Your task to perform on an android device: delete the emails in spam in the gmail app Image 0: 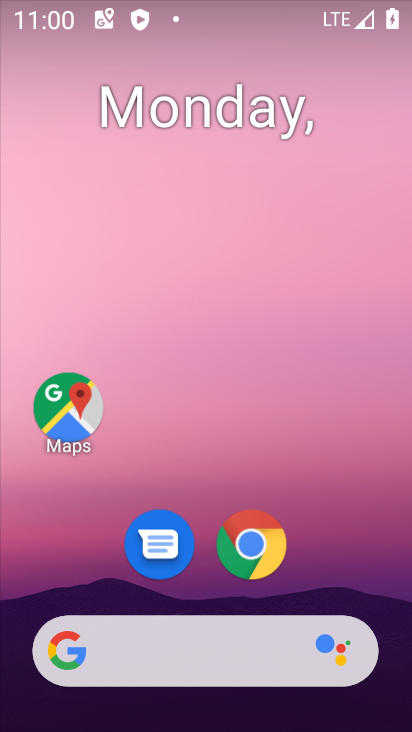
Step 0: drag from (381, 635) to (382, 243)
Your task to perform on an android device: delete the emails in spam in the gmail app Image 1: 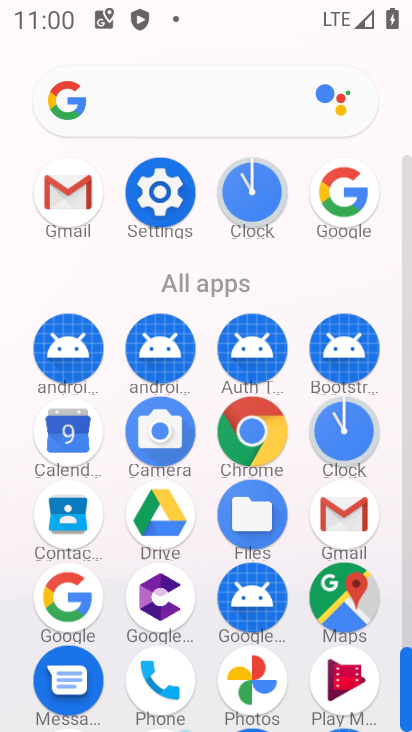
Step 1: click (340, 512)
Your task to perform on an android device: delete the emails in spam in the gmail app Image 2: 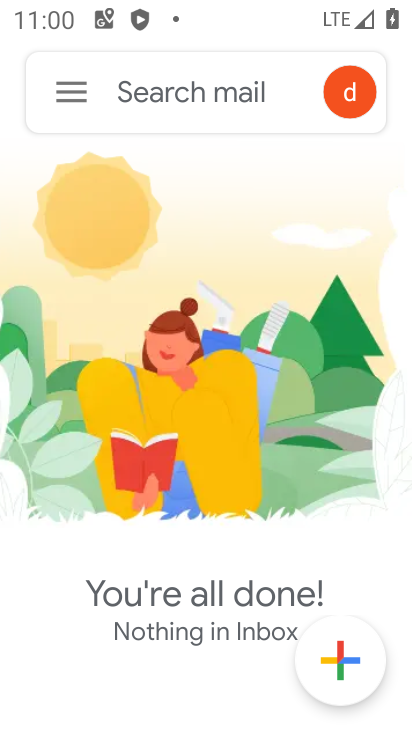
Step 2: click (81, 94)
Your task to perform on an android device: delete the emails in spam in the gmail app Image 3: 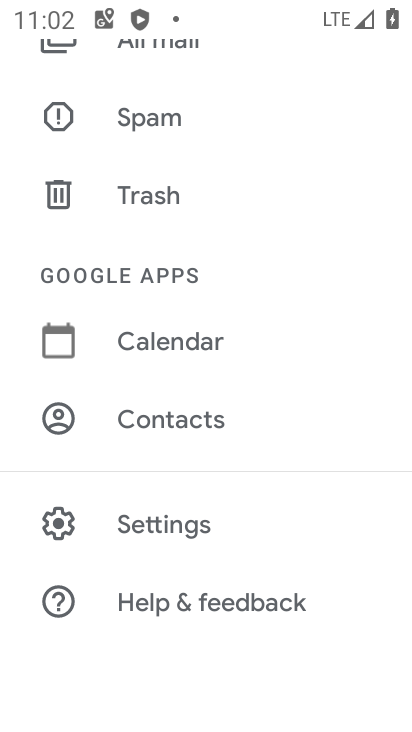
Step 3: click (148, 128)
Your task to perform on an android device: delete the emails in spam in the gmail app Image 4: 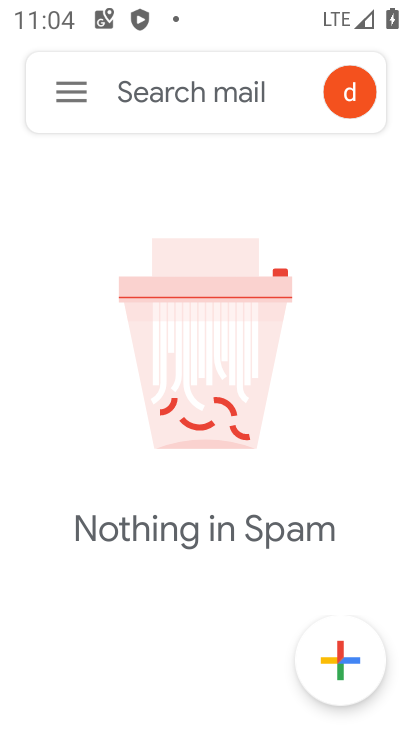
Step 4: task complete